Your task to perform on an android device: turn off picture-in-picture Image 0: 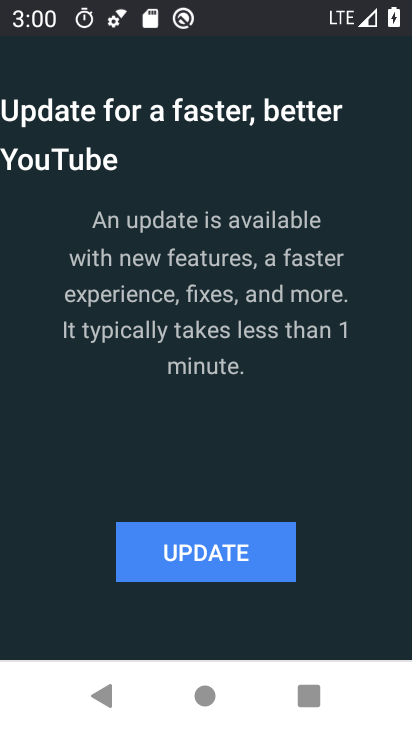
Step 0: press home button
Your task to perform on an android device: turn off picture-in-picture Image 1: 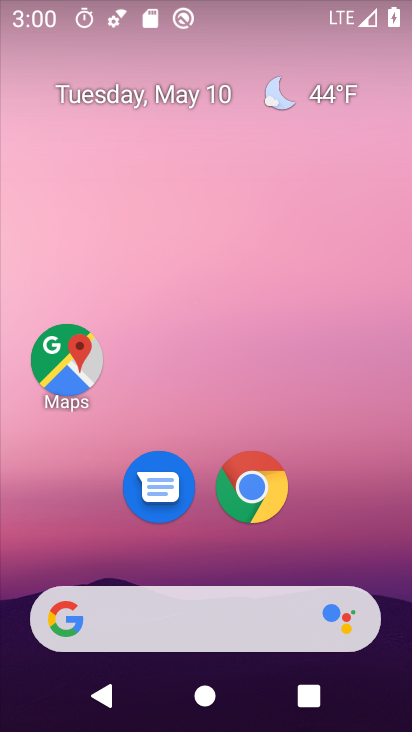
Step 1: click (252, 485)
Your task to perform on an android device: turn off picture-in-picture Image 2: 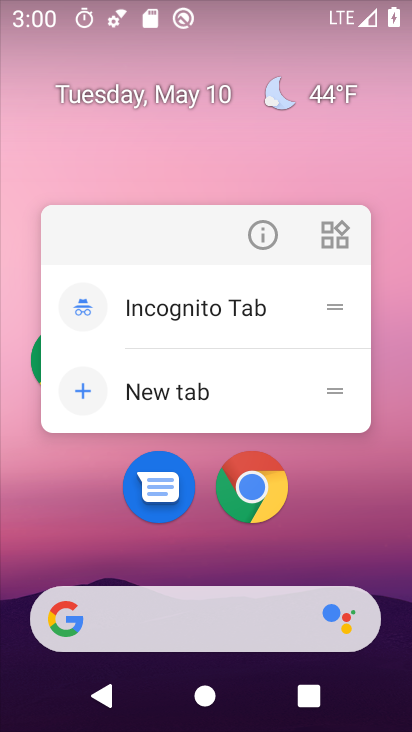
Step 2: click (265, 233)
Your task to perform on an android device: turn off picture-in-picture Image 3: 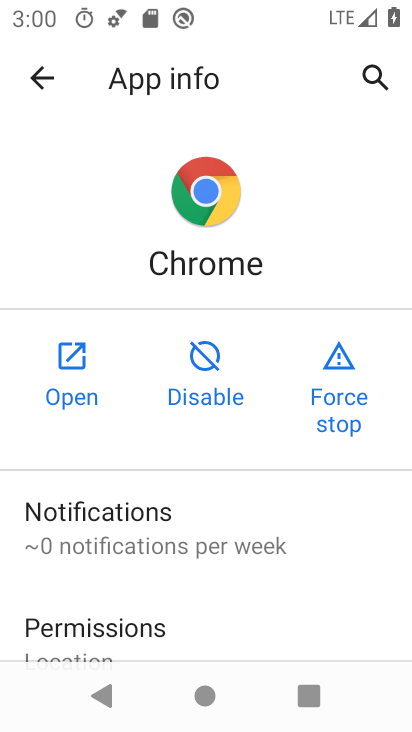
Step 3: drag from (261, 617) to (234, 400)
Your task to perform on an android device: turn off picture-in-picture Image 4: 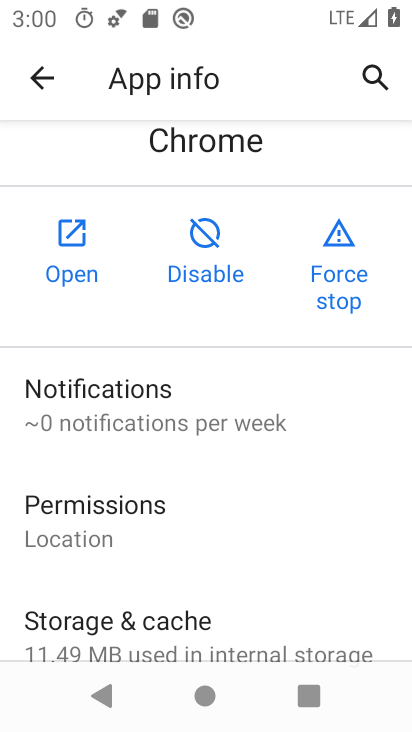
Step 4: drag from (295, 622) to (343, 253)
Your task to perform on an android device: turn off picture-in-picture Image 5: 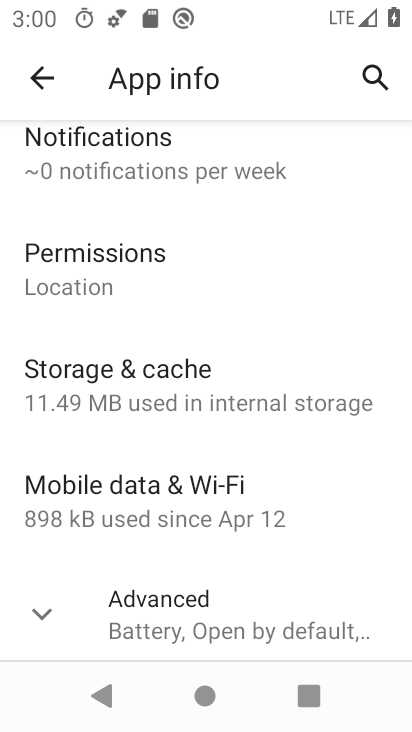
Step 5: drag from (336, 514) to (337, 393)
Your task to perform on an android device: turn off picture-in-picture Image 6: 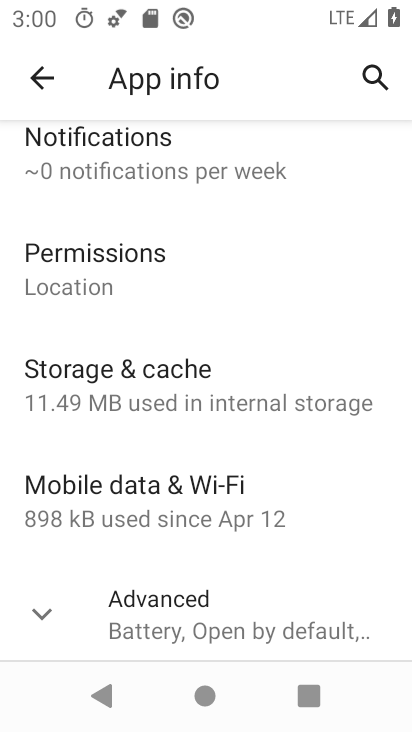
Step 6: drag from (318, 594) to (341, 362)
Your task to perform on an android device: turn off picture-in-picture Image 7: 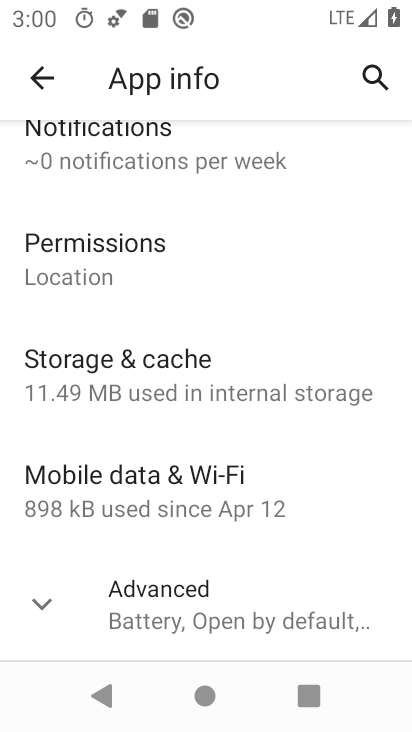
Step 7: click (51, 606)
Your task to perform on an android device: turn off picture-in-picture Image 8: 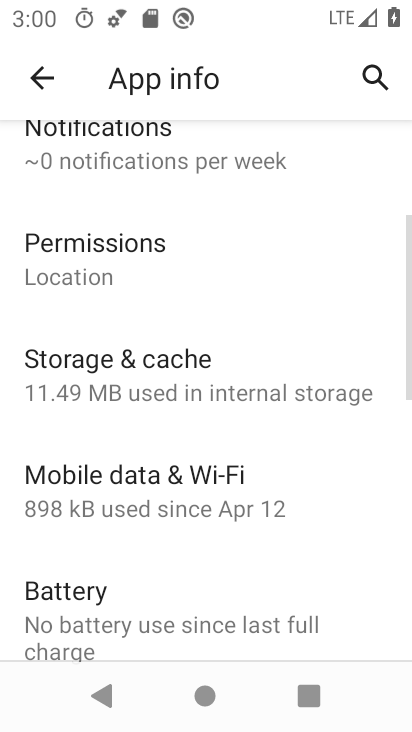
Step 8: drag from (342, 624) to (347, 292)
Your task to perform on an android device: turn off picture-in-picture Image 9: 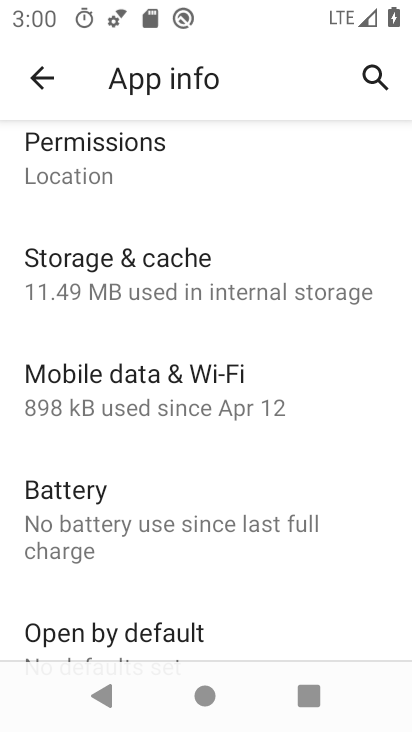
Step 9: drag from (340, 586) to (333, 268)
Your task to perform on an android device: turn off picture-in-picture Image 10: 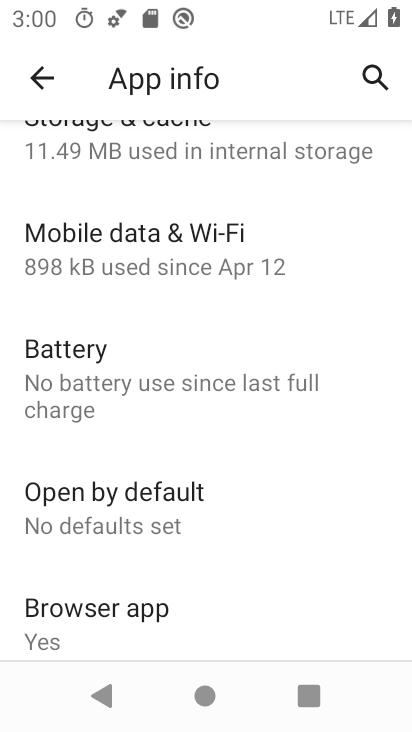
Step 10: drag from (280, 577) to (301, 259)
Your task to perform on an android device: turn off picture-in-picture Image 11: 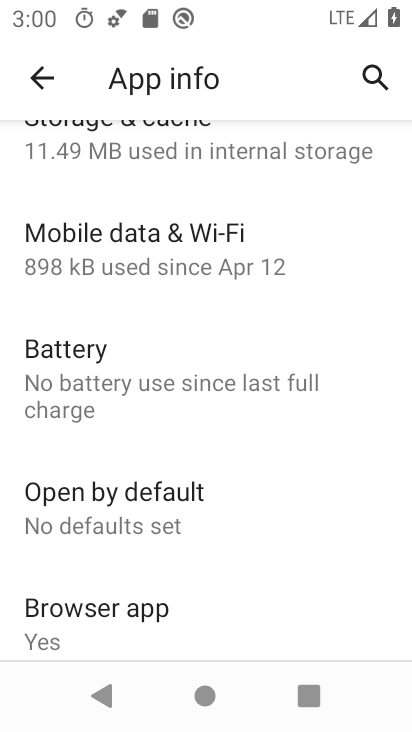
Step 11: drag from (261, 576) to (272, 335)
Your task to perform on an android device: turn off picture-in-picture Image 12: 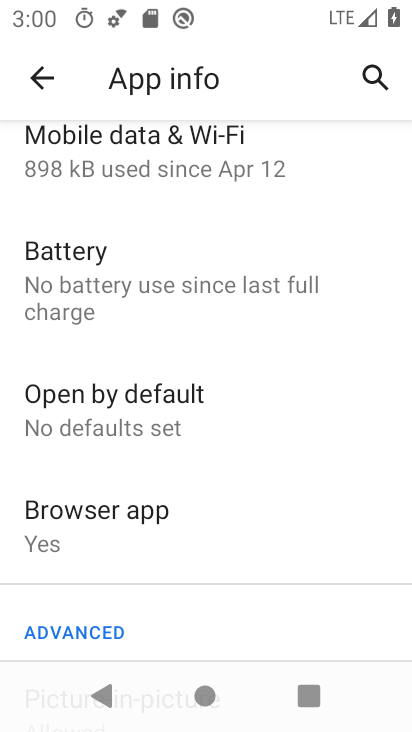
Step 12: drag from (249, 594) to (262, 254)
Your task to perform on an android device: turn off picture-in-picture Image 13: 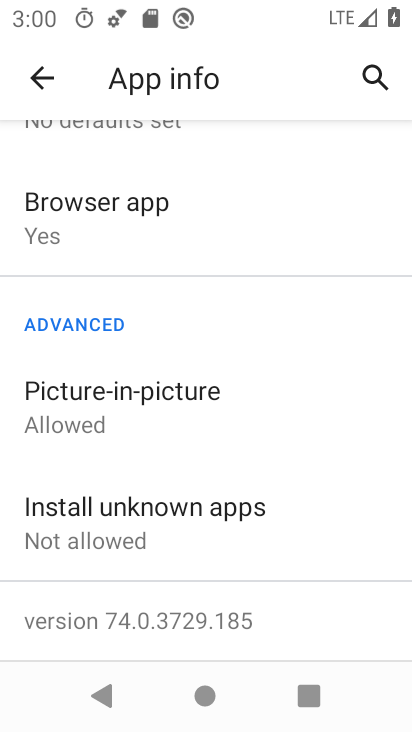
Step 13: drag from (265, 585) to (265, 339)
Your task to perform on an android device: turn off picture-in-picture Image 14: 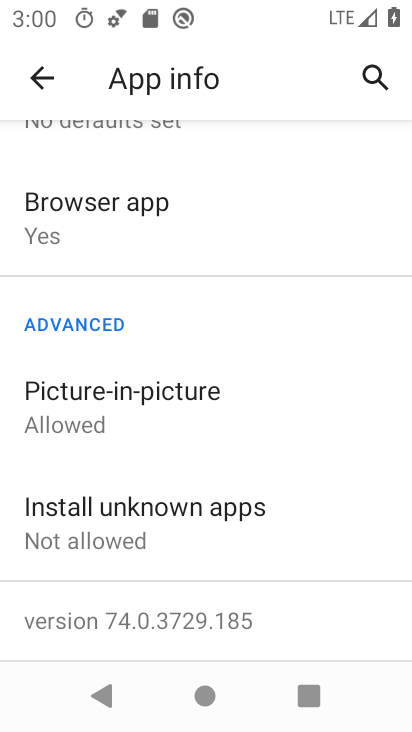
Step 14: click (80, 386)
Your task to perform on an android device: turn off picture-in-picture Image 15: 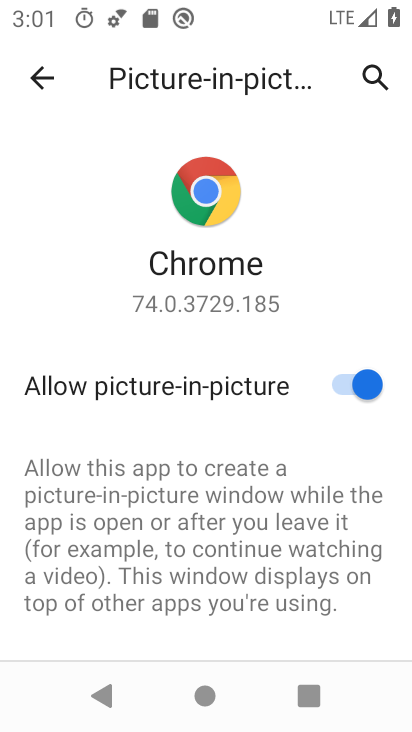
Step 15: click (337, 382)
Your task to perform on an android device: turn off picture-in-picture Image 16: 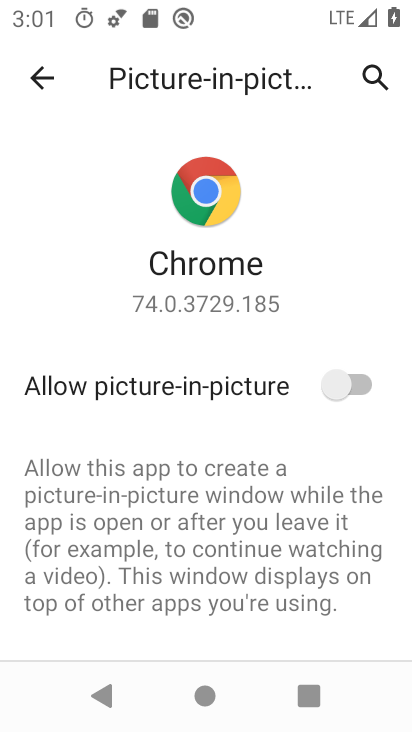
Step 16: task complete